Your task to perform on an android device: change the clock display to analog Image 0: 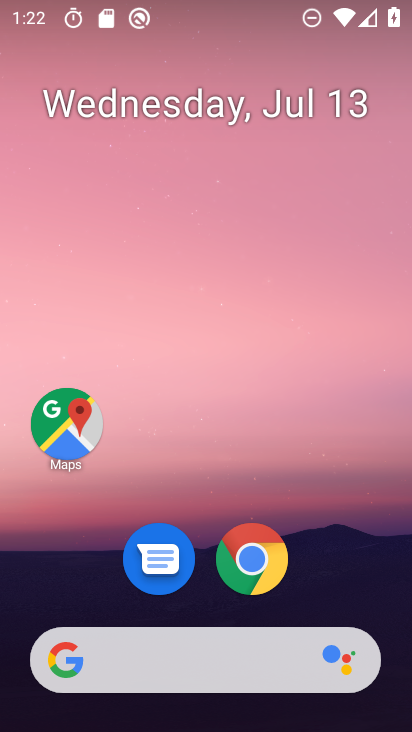
Step 0: drag from (261, 623) to (225, 237)
Your task to perform on an android device: change the clock display to analog Image 1: 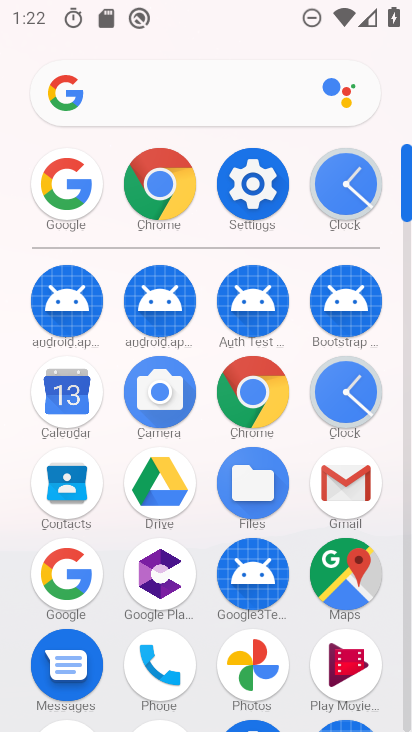
Step 1: click (354, 413)
Your task to perform on an android device: change the clock display to analog Image 2: 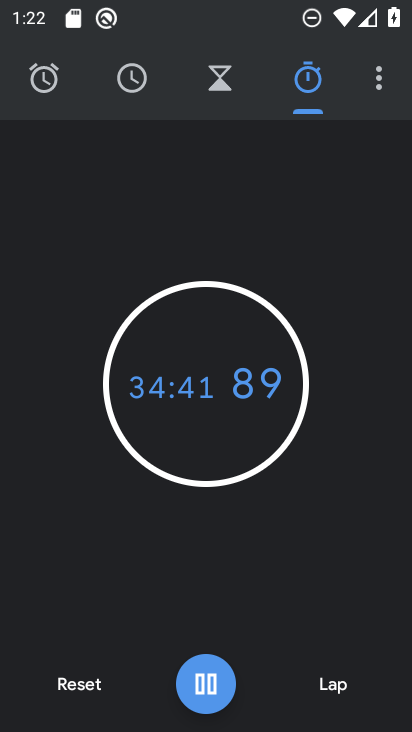
Step 2: click (374, 99)
Your task to perform on an android device: change the clock display to analog Image 3: 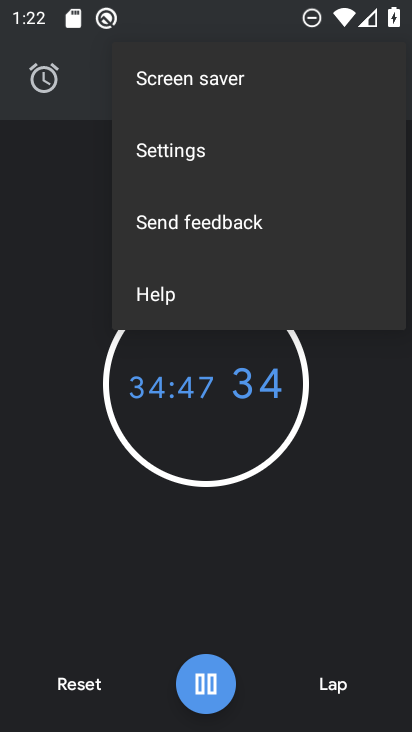
Step 3: click (177, 166)
Your task to perform on an android device: change the clock display to analog Image 4: 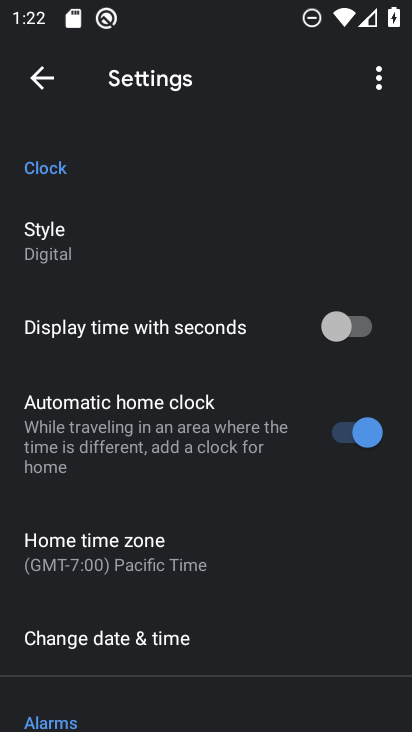
Step 4: click (93, 238)
Your task to perform on an android device: change the clock display to analog Image 5: 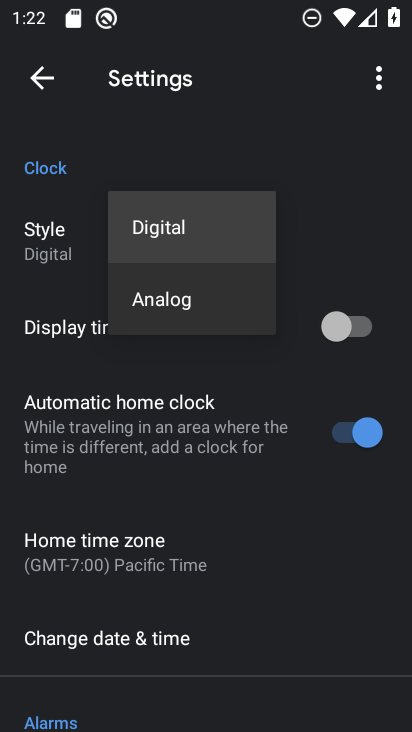
Step 5: click (172, 306)
Your task to perform on an android device: change the clock display to analog Image 6: 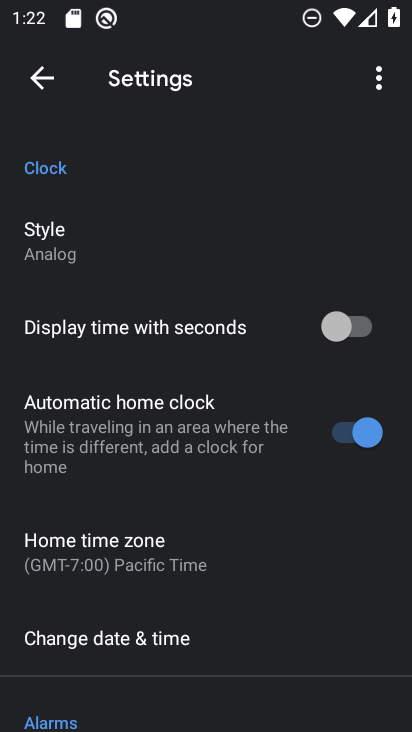
Step 6: task complete